Your task to perform on an android device: check android version Image 0: 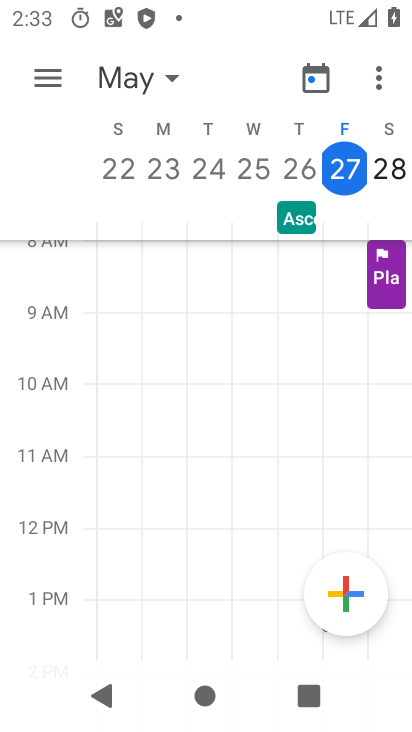
Step 0: press home button
Your task to perform on an android device: check android version Image 1: 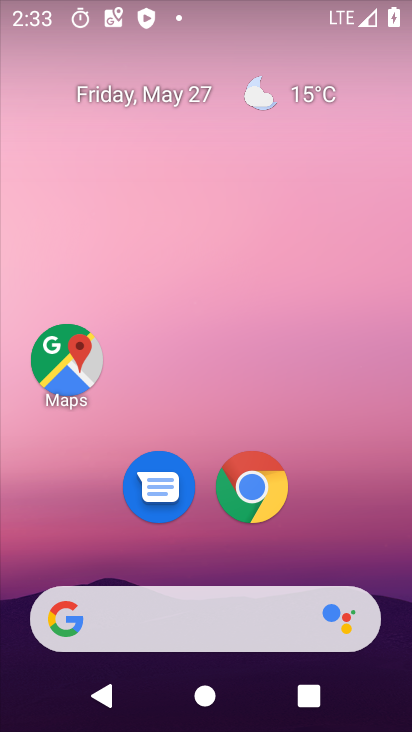
Step 1: drag from (371, 420) to (319, 150)
Your task to perform on an android device: check android version Image 2: 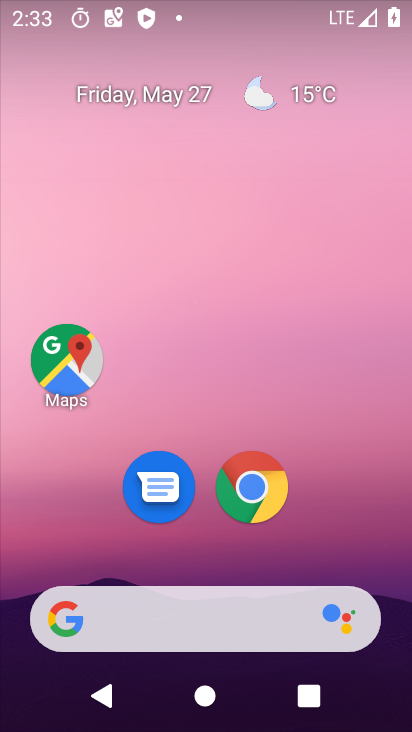
Step 2: drag from (337, 464) to (298, 67)
Your task to perform on an android device: check android version Image 3: 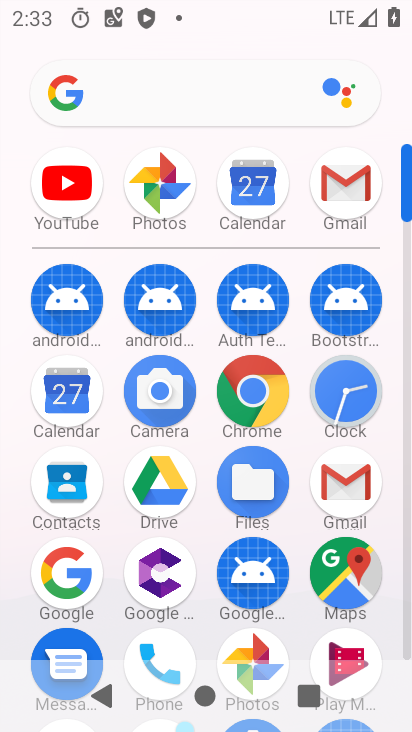
Step 3: drag from (208, 602) to (218, 225)
Your task to perform on an android device: check android version Image 4: 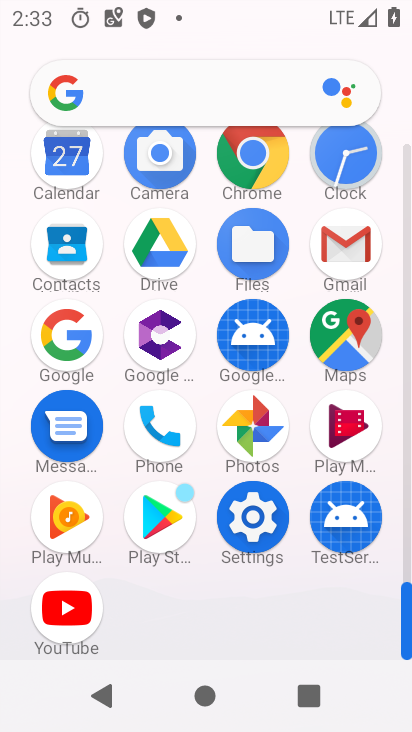
Step 4: click (255, 533)
Your task to perform on an android device: check android version Image 5: 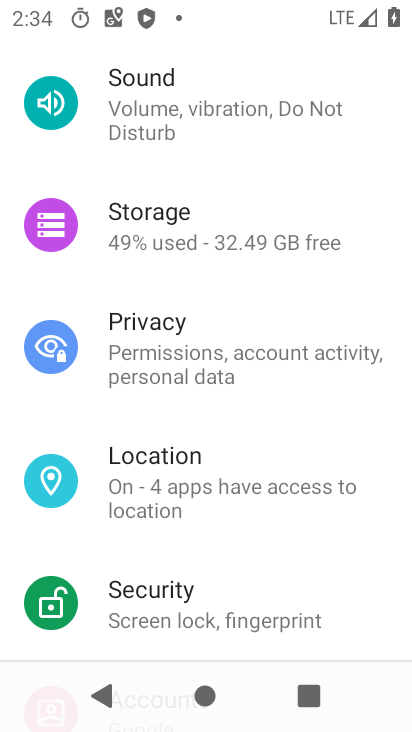
Step 5: drag from (247, 528) to (266, 145)
Your task to perform on an android device: check android version Image 6: 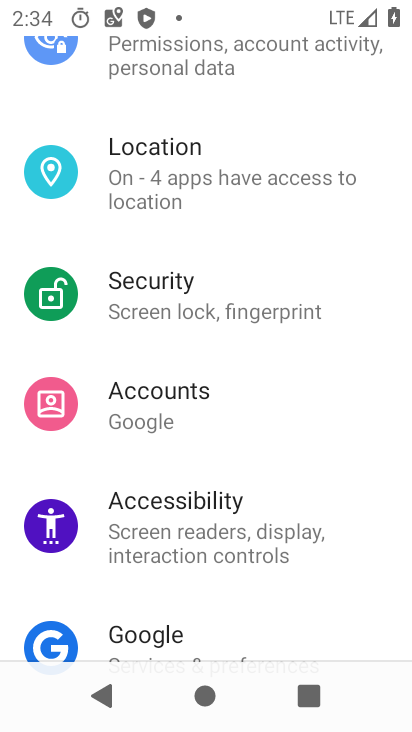
Step 6: drag from (227, 546) to (274, 109)
Your task to perform on an android device: check android version Image 7: 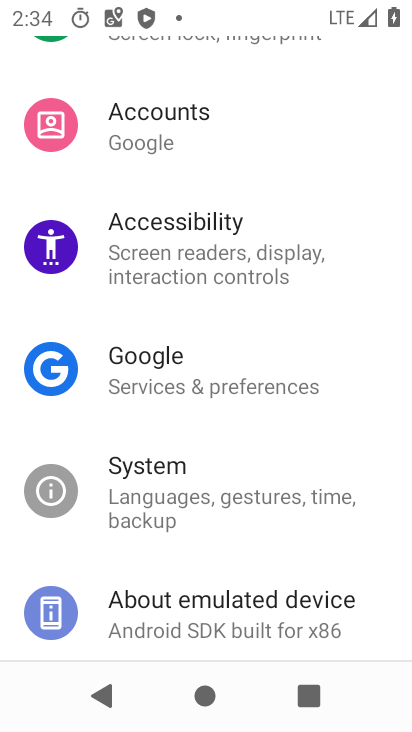
Step 7: click (174, 626)
Your task to perform on an android device: check android version Image 8: 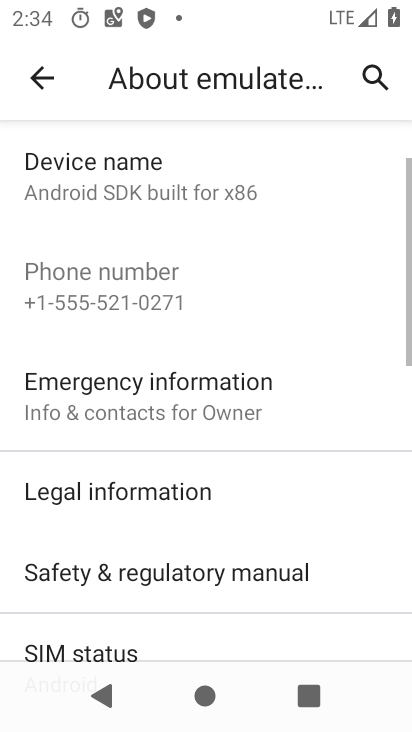
Step 8: drag from (151, 564) to (250, 138)
Your task to perform on an android device: check android version Image 9: 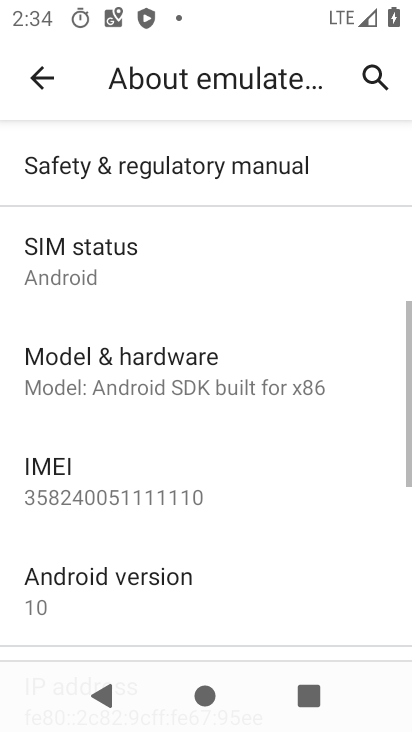
Step 9: drag from (212, 588) to (331, 242)
Your task to perform on an android device: check android version Image 10: 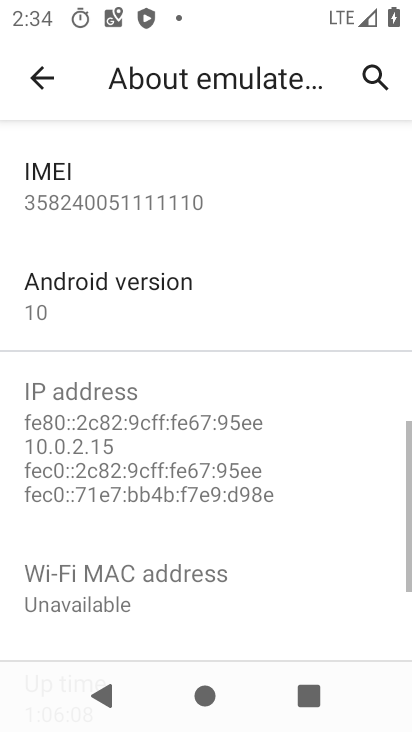
Step 10: click (184, 313)
Your task to perform on an android device: check android version Image 11: 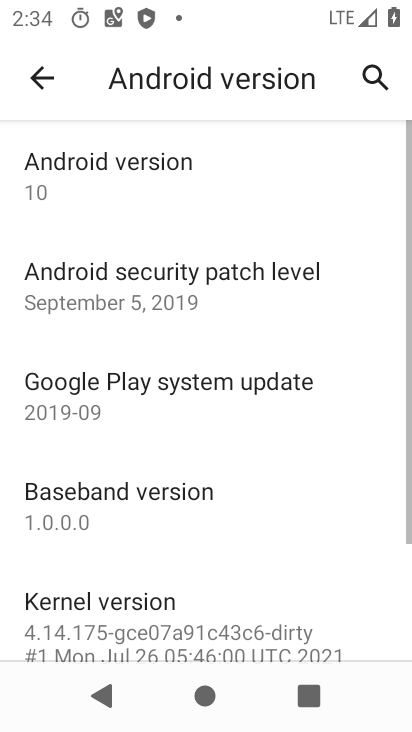
Step 11: task complete